Your task to perform on an android device: change notification settings in the gmail app Image 0: 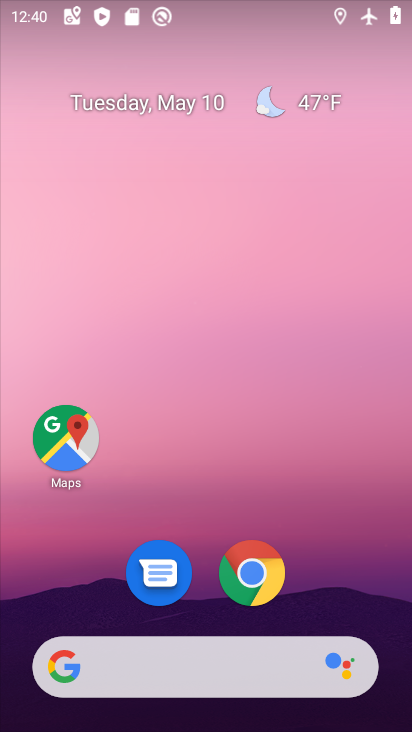
Step 0: click (252, 155)
Your task to perform on an android device: change notification settings in the gmail app Image 1: 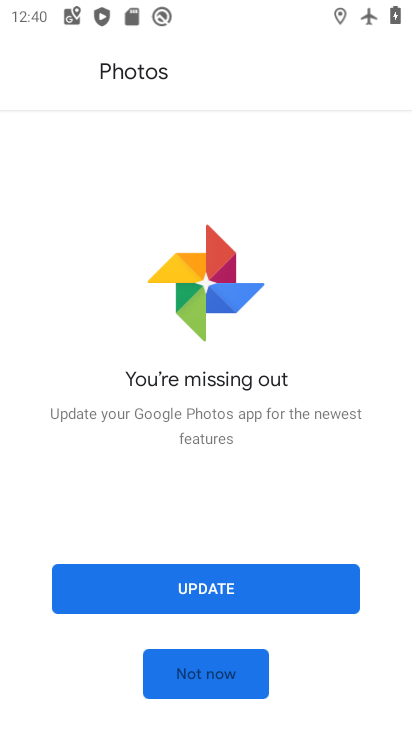
Step 1: press home button
Your task to perform on an android device: change notification settings in the gmail app Image 2: 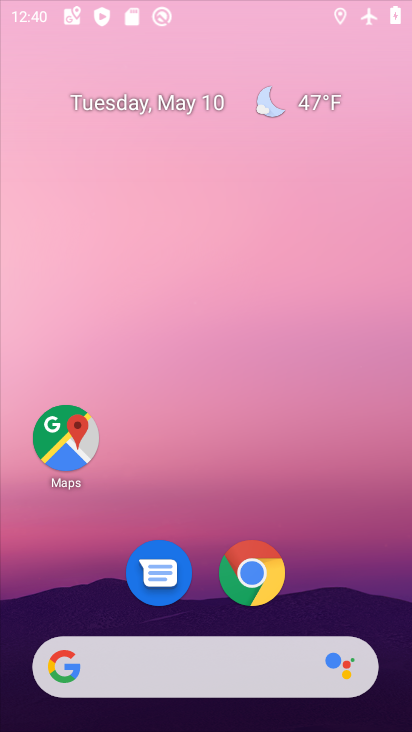
Step 2: drag from (203, 608) to (251, 213)
Your task to perform on an android device: change notification settings in the gmail app Image 3: 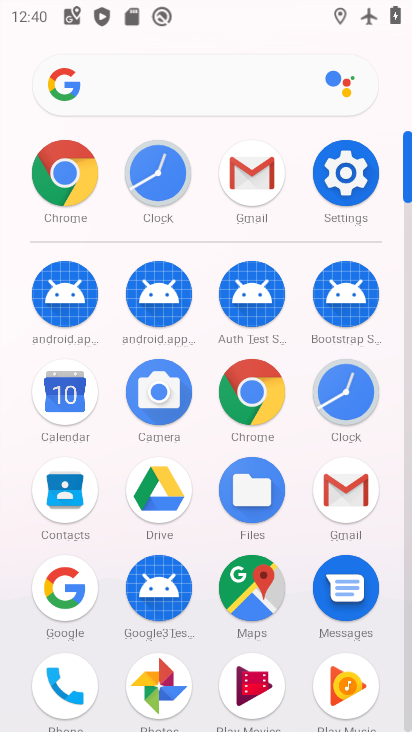
Step 3: click (334, 491)
Your task to perform on an android device: change notification settings in the gmail app Image 4: 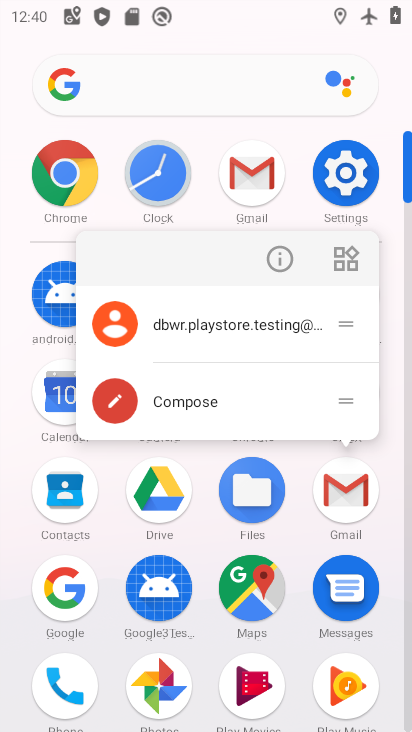
Step 4: click (274, 246)
Your task to perform on an android device: change notification settings in the gmail app Image 5: 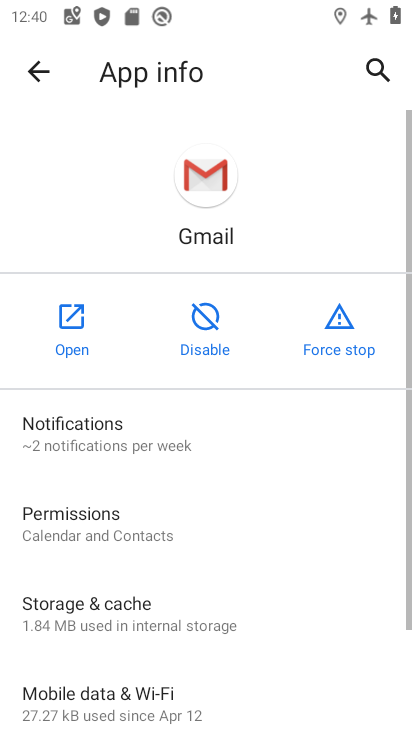
Step 5: click (66, 335)
Your task to perform on an android device: change notification settings in the gmail app Image 6: 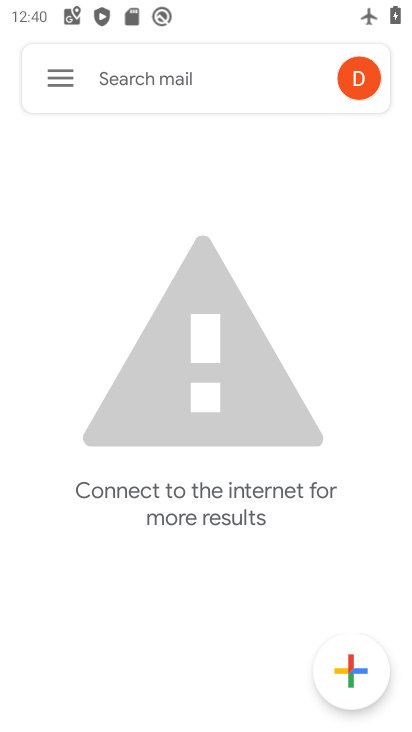
Step 6: click (64, 84)
Your task to perform on an android device: change notification settings in the gmail app Image 7: 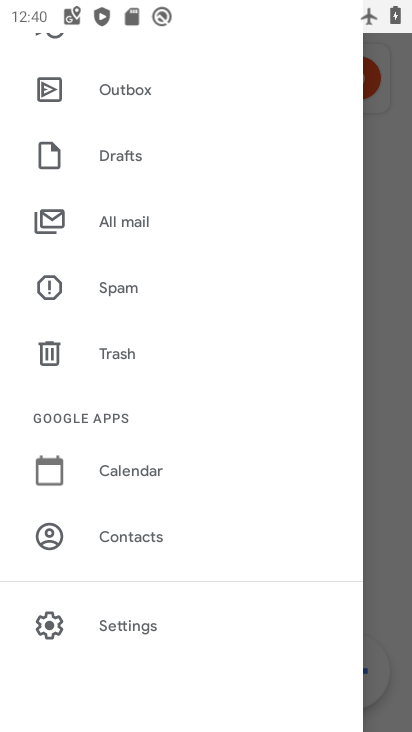
Step 7: drag from (172, 654) to (185, 193)
Your task to perform on an android device: change notification settings in the gmail app Image 8: 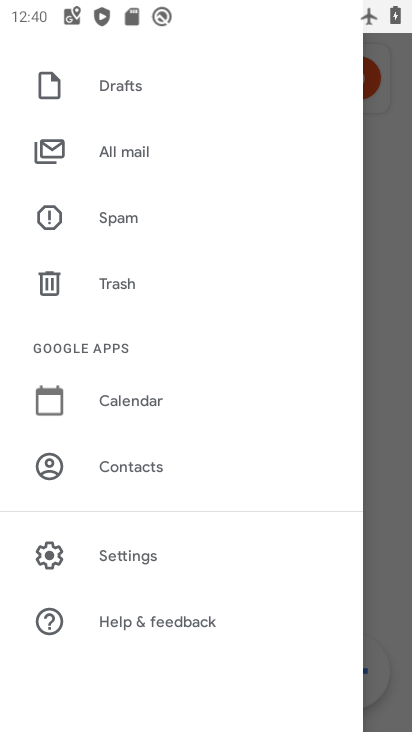
Step 8: click (115, 552)
Your task to perform on an android device: change notification settings in the gmail app Image 9: 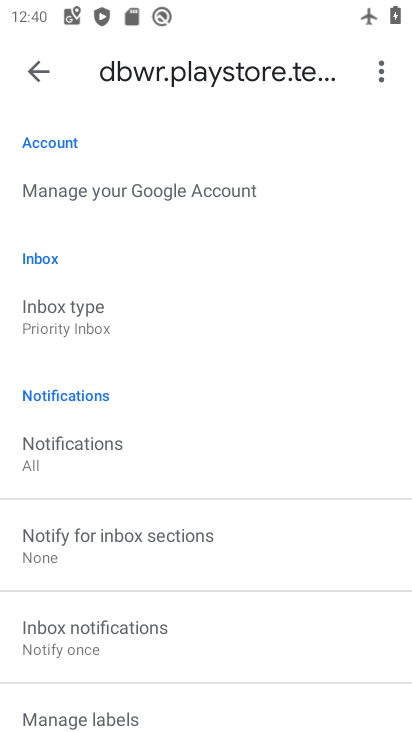
Step 9: drag from (172, 630) to (209, 253)
Your task to perform on an android device: change notification settings in the gmail app Image 10: 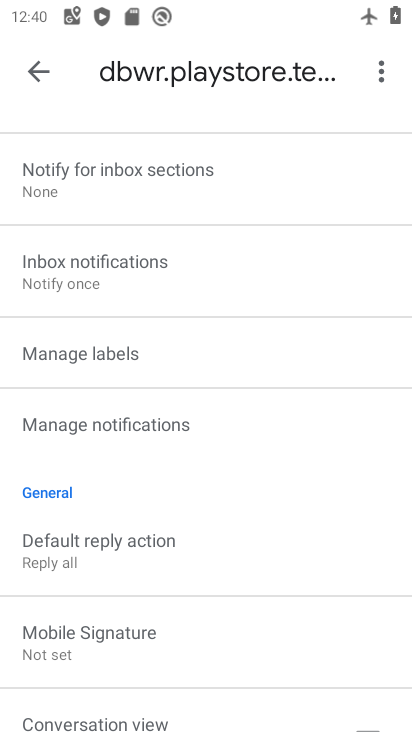
Step 10: click (102, 429)
Your task to perform on an android device: change notification settings in the gmail app Image 11: 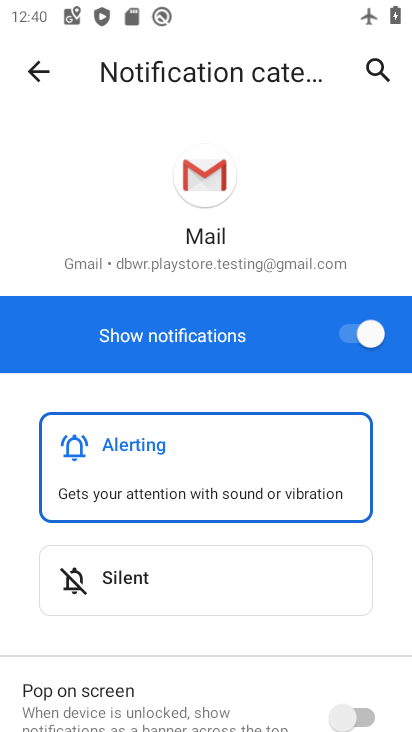
Step 11: drag from (218, 607) to (243, 312)
Your task to perform on an android device: change notification settings in the gmail app Image 12: 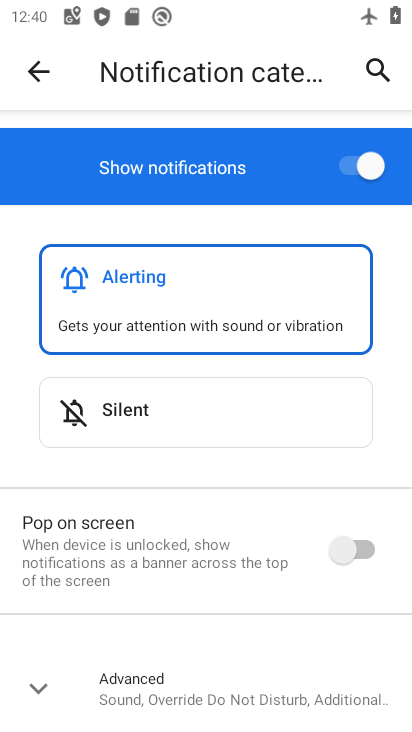
Step 12: click (366, 175)
Your task to perform on an android device: change notification settings in the gmail app Image 13: 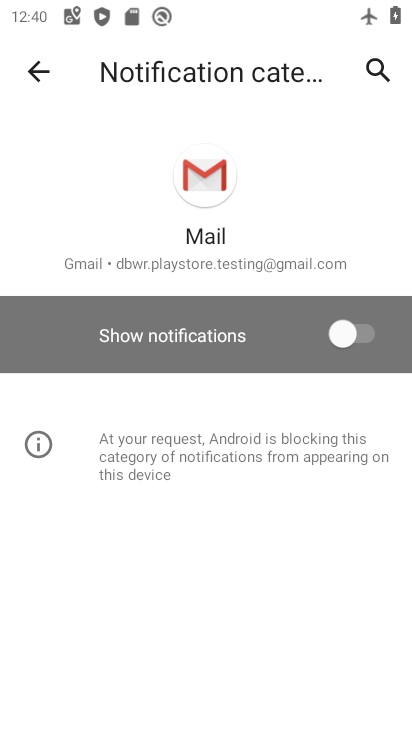
Step 13: task complete